Your task to perform on an android device: Open location settings Image 0: 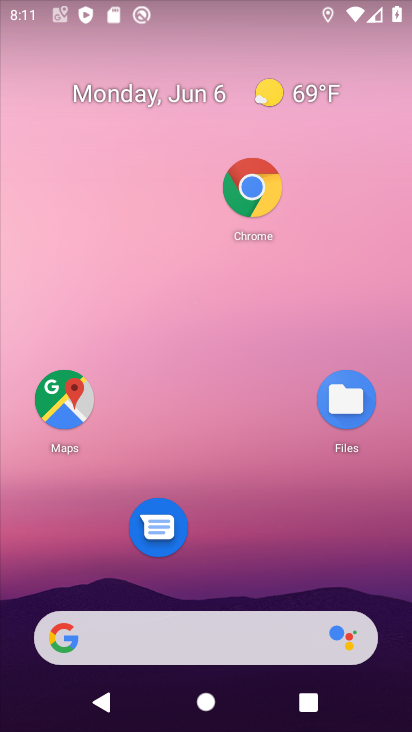
Step 0: drag from (223, 445) to (174, 44)
Your task to perform on an android device: Open location settings Image 1: 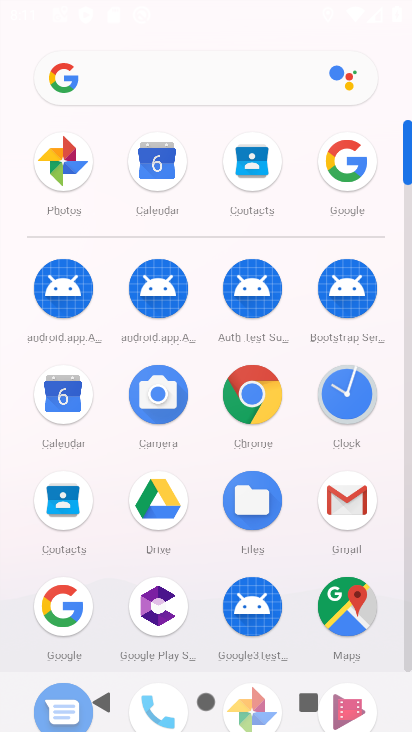
Step 1: drag from (176, 507) to (189, 228)
Your task to perform on an android device: Open location settings Image 2: 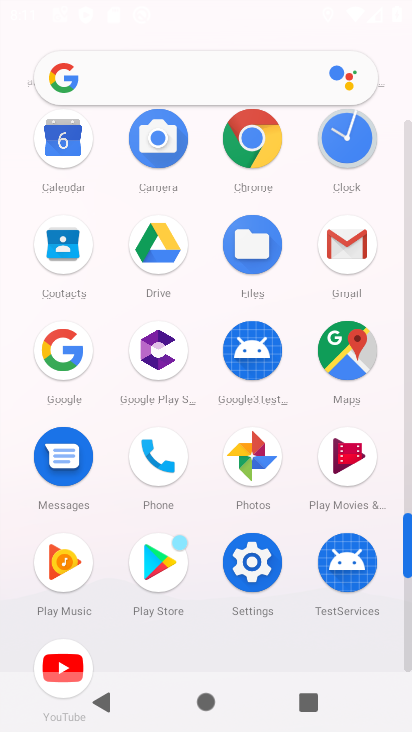
Step 2: click (254, 562)
Your task to perform on an android device: Open location settings Image 3: 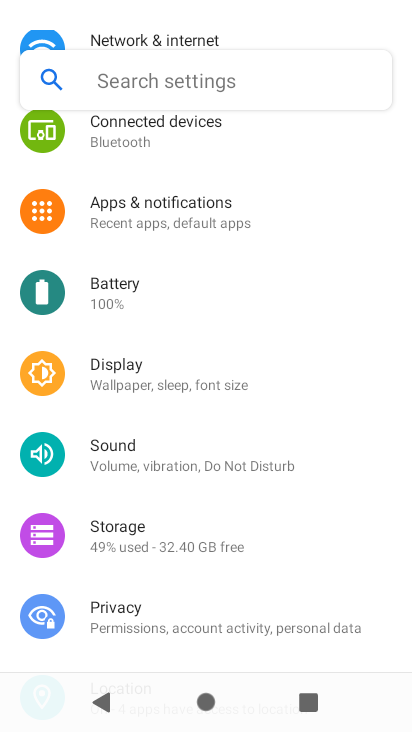
Step 3: drag from (213, 537) to (200, 194)
Your task to perform on an android device: Open location settings Image 4: 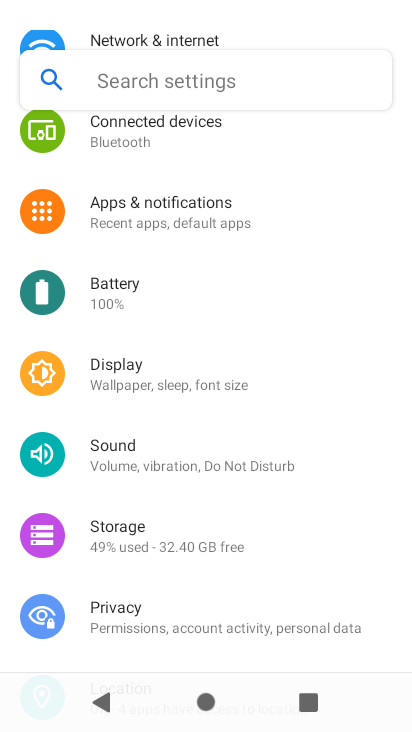
Step 4: drag from (176, 554) to (143, 196)
Your task to perform on an android device: Open location settings Image 5: 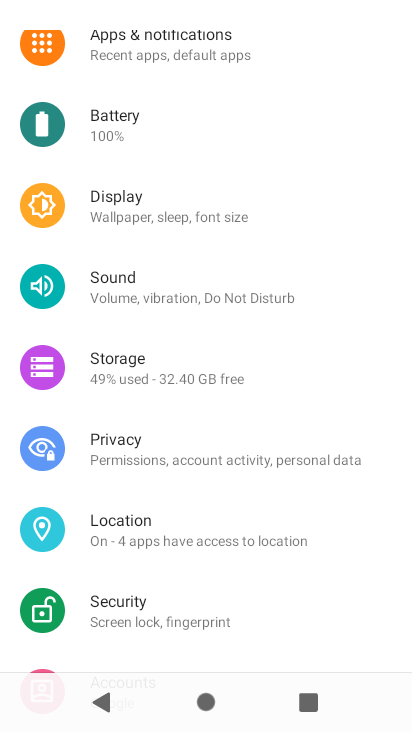
Step 5: click (125, 532)
Your task to perform on an android device: Open location settings Image 6: 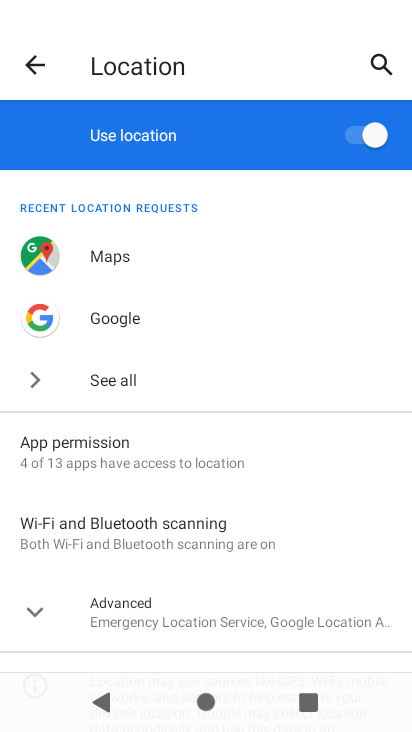
Step 6: task complete